Your task to perform on an android device: Open Wikipedia Image 0: 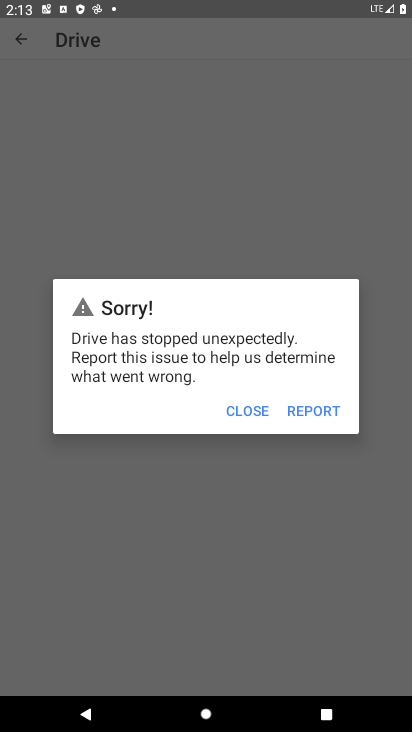
Step 0: press home button
Your task to perform on an android device: Open Wikipedia Image 1: 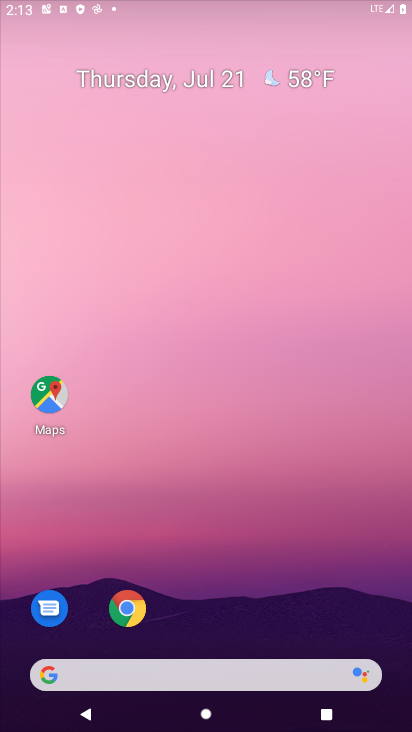
Step 1: drag from (397, 647) to (259, 0)
Your task to perform on an android device: Open Wikipedia Image 2: 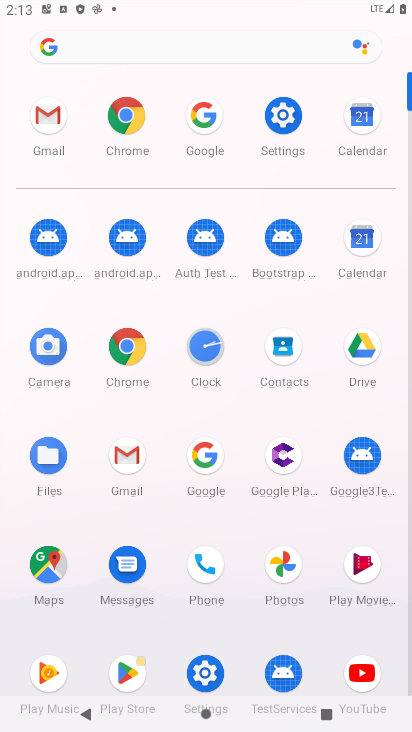
Step 2: click (198, 459)
Your task to perform on an android device: Open Wikipedia Image 3: 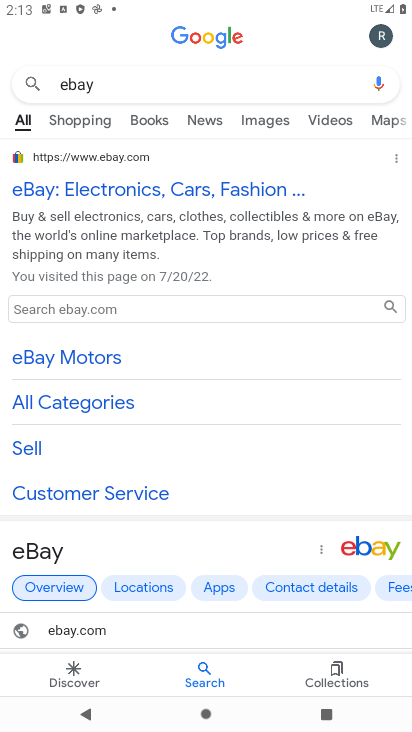
Step 3: press back button
Your task to perform on an android device: Open Wikipedia Image 4: 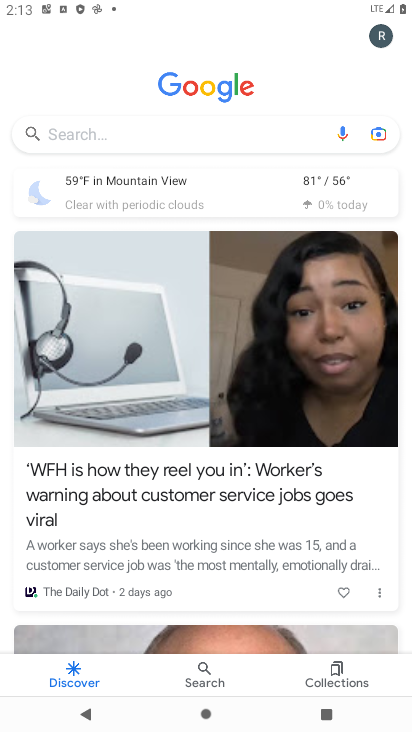
Step 4: click (65, 133)
Your task to perform on an android device: Open Wikipedia Image 5: 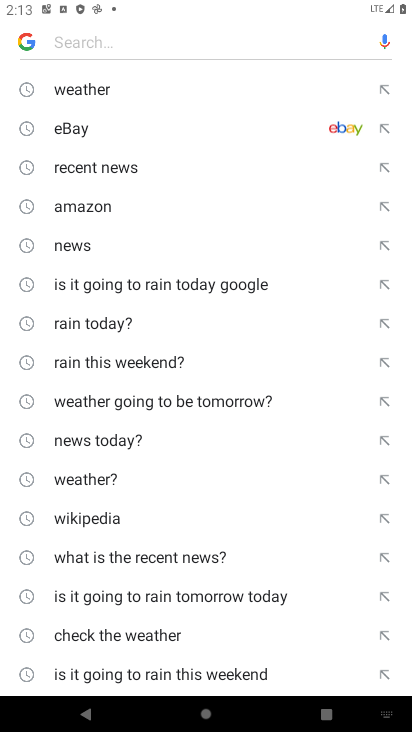
Step 5: click (101, 526)
Your task to perform on an android device: Open Wikipedia Image 6: 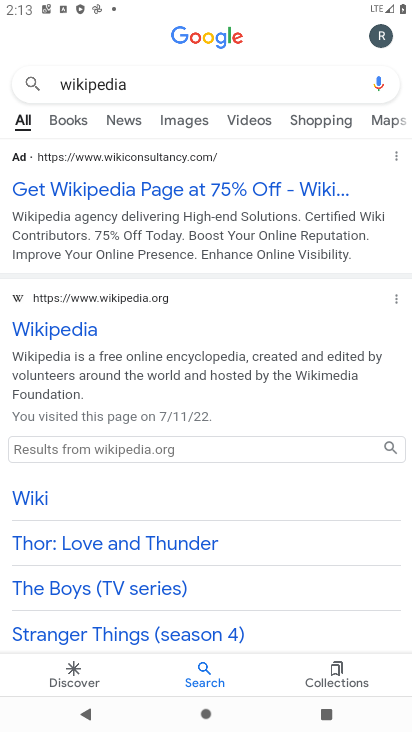
Step 6: task complete